Your task to perform on an android device: make emails show in primary in the gmail app Image 0: 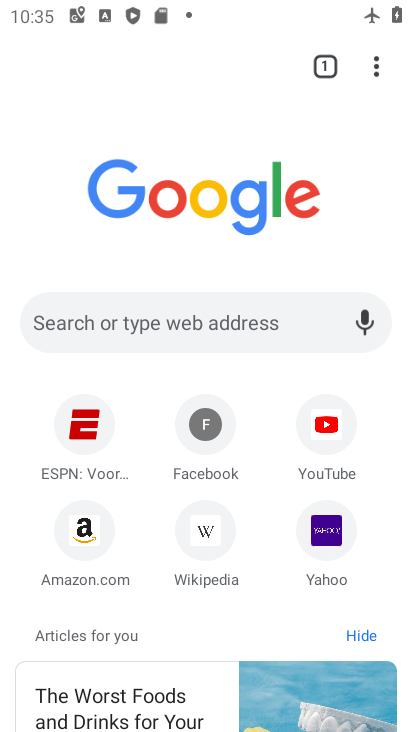
Step 0: press home button
Your task to perform on an android device: make emails show in primary in the gmail app Image 1: 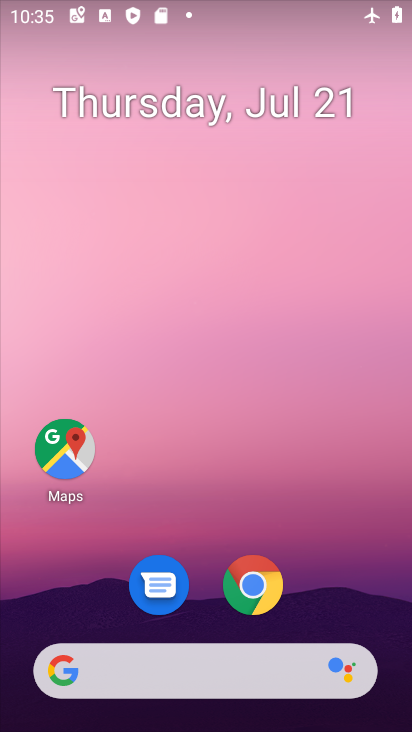
Step 1: drag from (301, 595) to (326, 7)
Your task to perform on an android device: make emails show in primary in the gmail app Image 2: 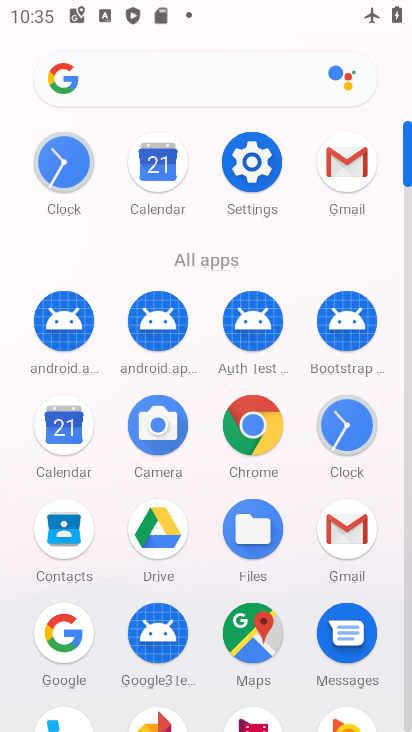
Step 2: click (349, 161)
Your task to perform on an android device: make emails show in primary in the gmail app Image 3: 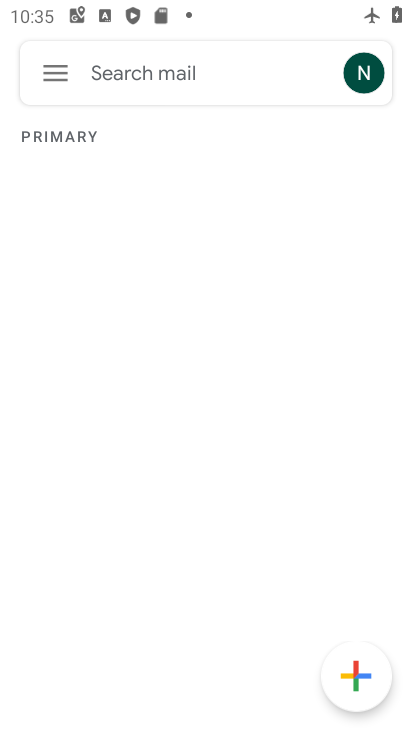
Step 3: click (52, 70)
Your task to perform on an android device: make emails show in primary in the gmail app Image 4: 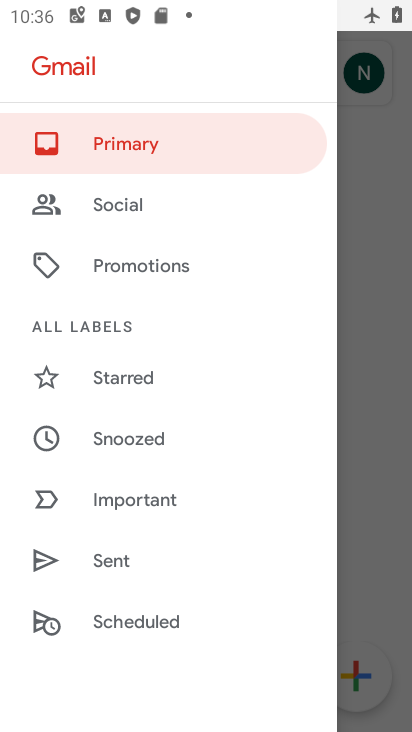
Step 4: drag from (145, 536) to (222, 89)
Your task to perform on an android device: make emails show in primary in the gmail app Image 5: 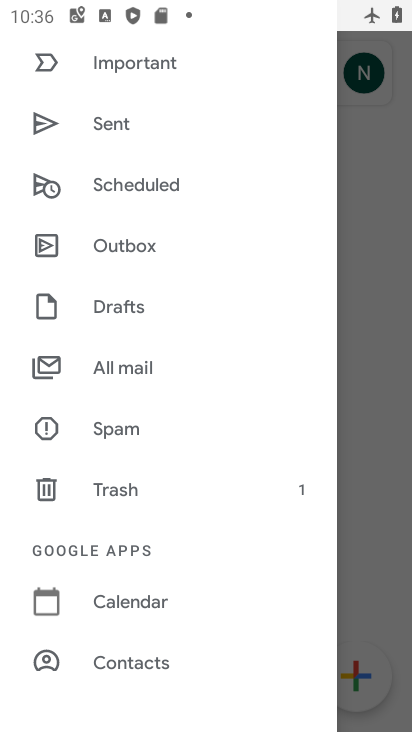
Step 5: drag from (212, 514) to (243, 247)
Your task to perform on an android device: make emails show in primary in the gmail app Image 6: 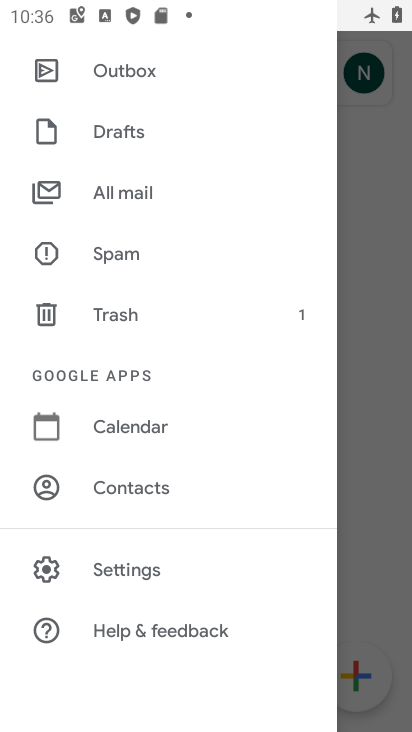
Step 6: click (151, 571)
Your task to perform on an android device: make emails show in primary in the gmail app Image 7: 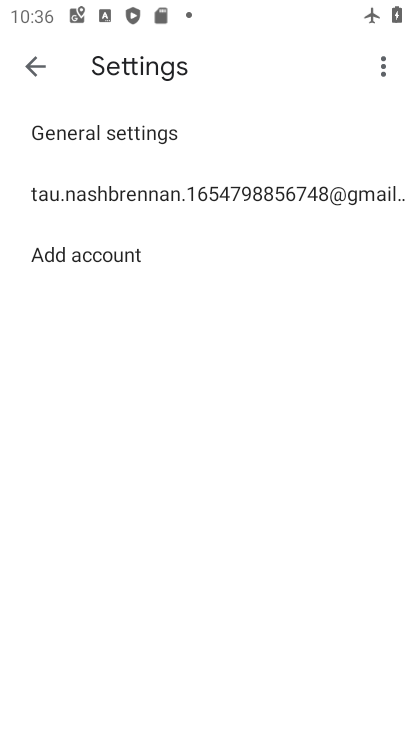
Step 7: click (212, 187)
Your task to perform on an android device: make emails show in primary in the gmail app Image 8: 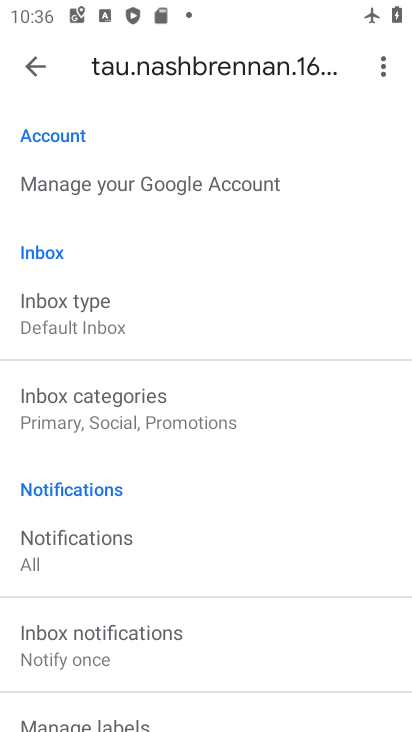
Step 8: click (78, 321)
Your task to perform on an android device: make emails show in primary in the gmail app Image 9: 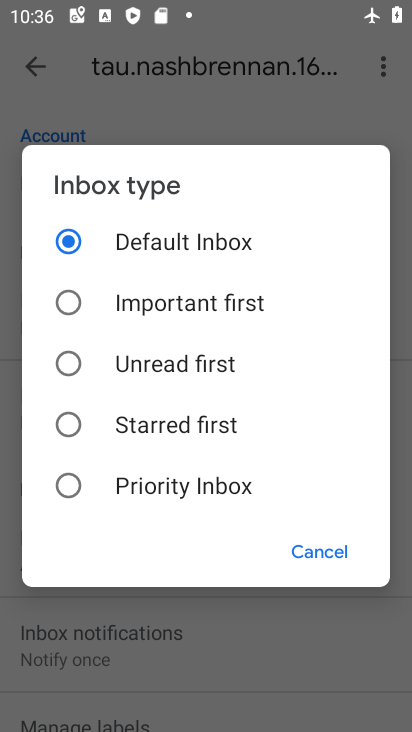
Step 9: click (313, 547)
Your task to perform on an android device: make emails show in primary in the gmail app Image 10: 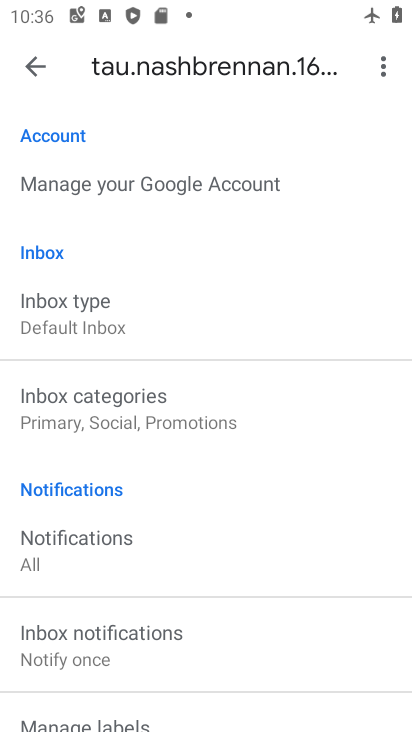
Step 10: click (194, 422)
Your task to perform on an android device: make emails show in primary in the gmail app Image 11: 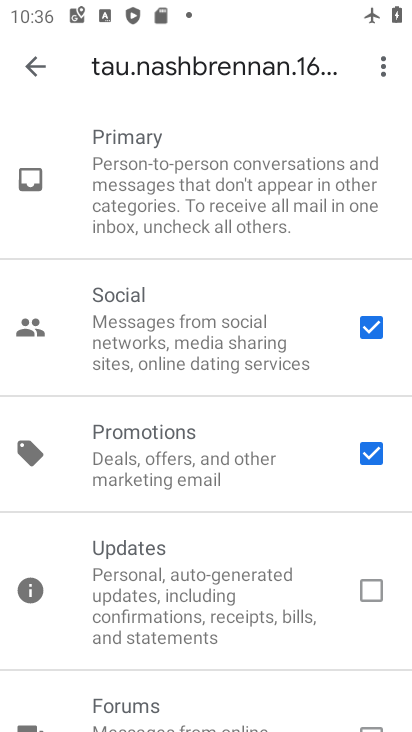
Step 11: click (368, 448)
Your task to perform on an android device: make emails show in primary in the gmail app Image 12: 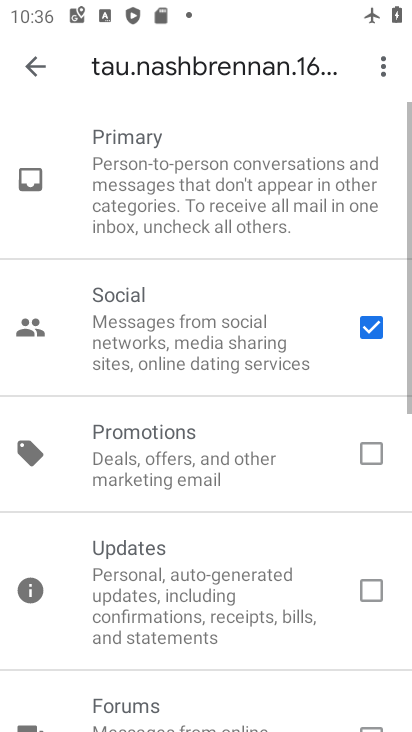
Step 12: click (367, 328)
Your task to perform on an android device: make emails show in primary in the gmail app Image 13: 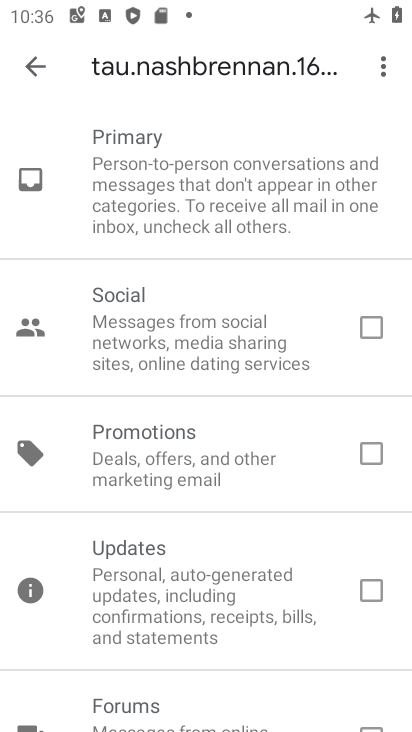
Step 13: click (47, 65)
Your task to perform on an android device: make emails show in primary in the gmail app Image 14: 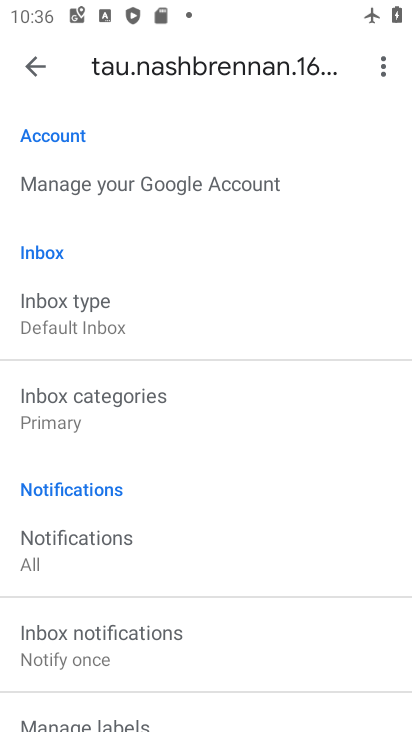
Step 14: task complete